Your task to perform on an android device: turn pop-ups off in chrome Image 0: 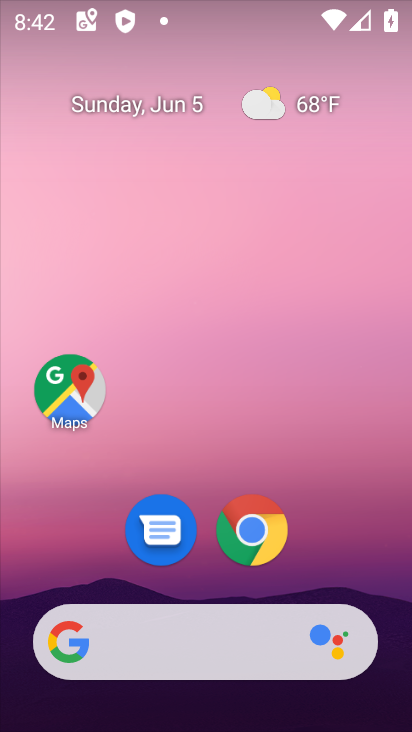
Step 0: click (248, 530)
Your task to perform on an android device: turn pop-ups off in chrome Image 1: 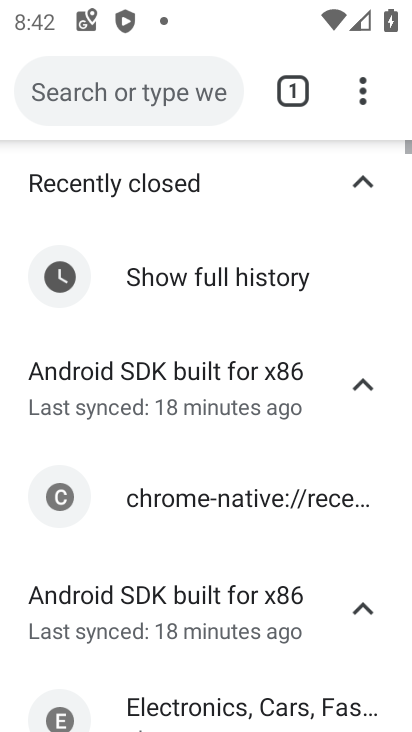
Step 1: click (358, 99)
Your task to perform on an android device: turn pop-ups off in chrome Image 2: 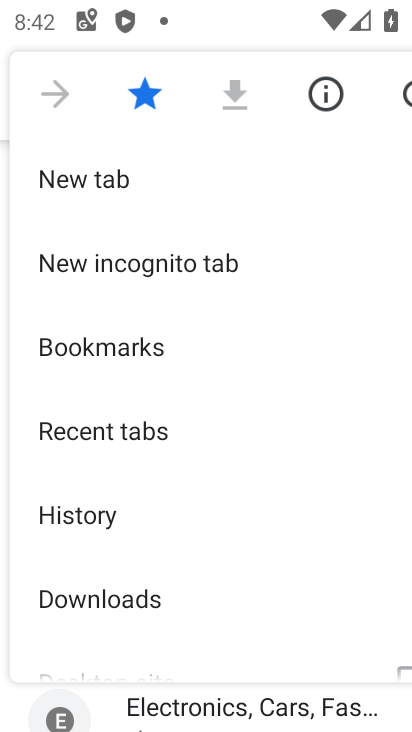
Step 2: drag from (214, 619) to (254, 168)
Your task to perform on an android device: turn pop-ups off in chrome Image 3: 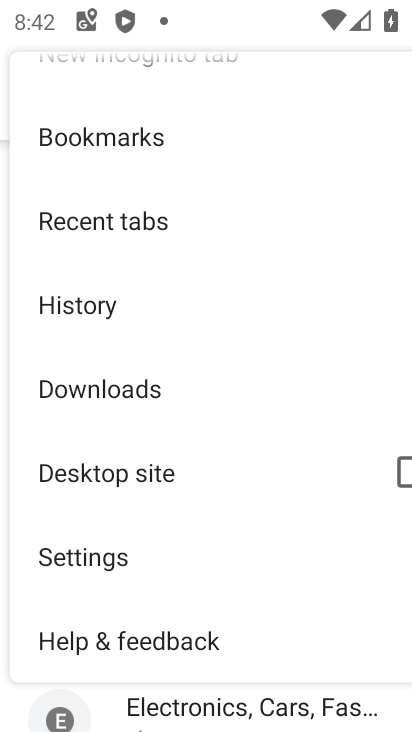
Step 3: drag from (210, 647) to (270, 343)
Your task to perform on an android device: turn pop-ups off in chrome Image 4: 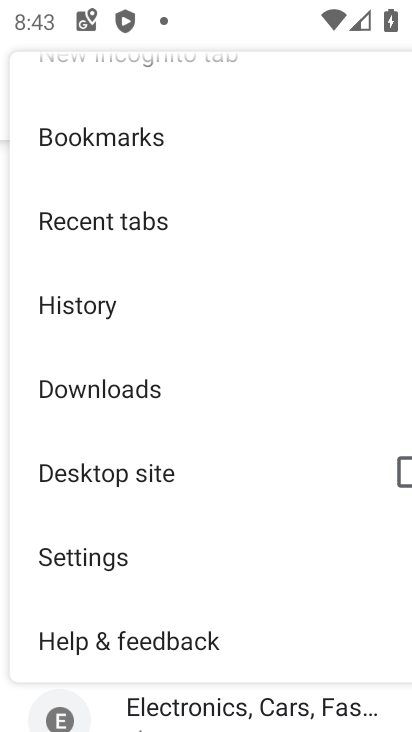
Step 4: click (100, 546)
Your task to perform on an android device: turn pop-ups off in chrome Image 5: 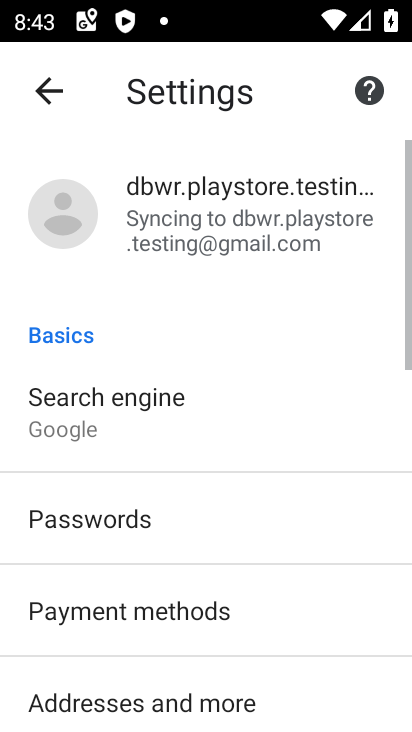
Step 5: drag from (297, 665) to (243, 201)
Your task to perform on an android device: turn pop-ups off in chrome Image 6: 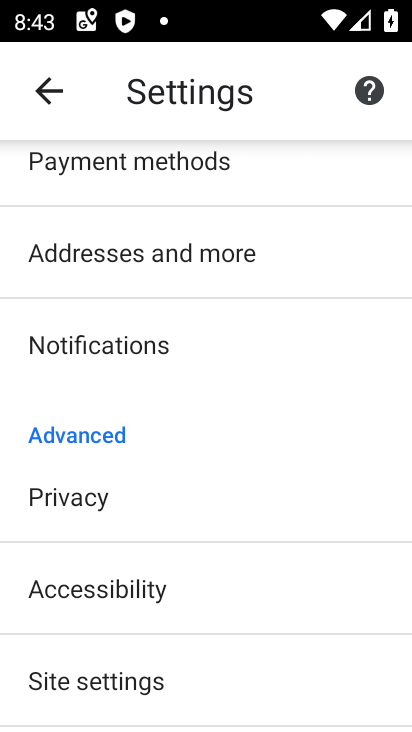
Step 6: drag from (236, 686) to (288, 272)
Your task to perform on an android device: turn pop-ups off in chrome Image 7: 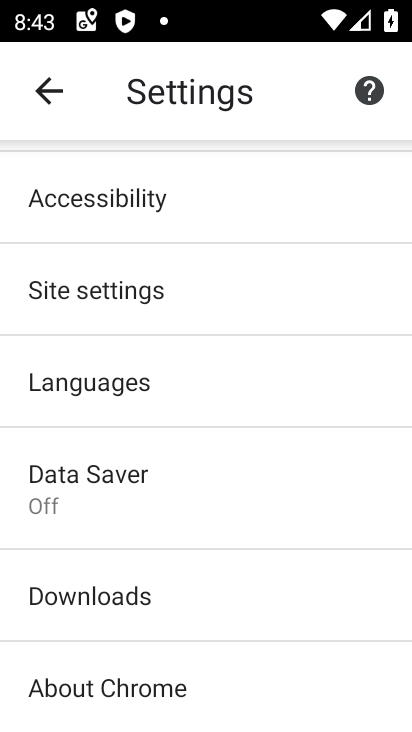
Step 7: click (63, 300)
Your task to perform on an android device: turn pop-ups off in chrome Image 8: 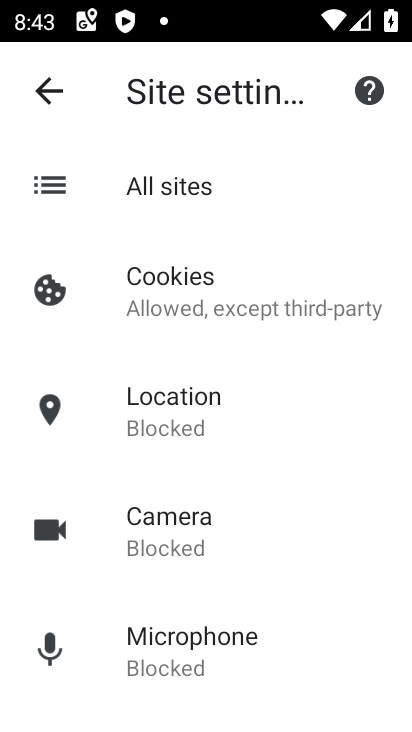
Step 8: drag from (265, 679) to (282, 125)
Your task to perform on an android device: turn pop-ups off in chrome Image 9: 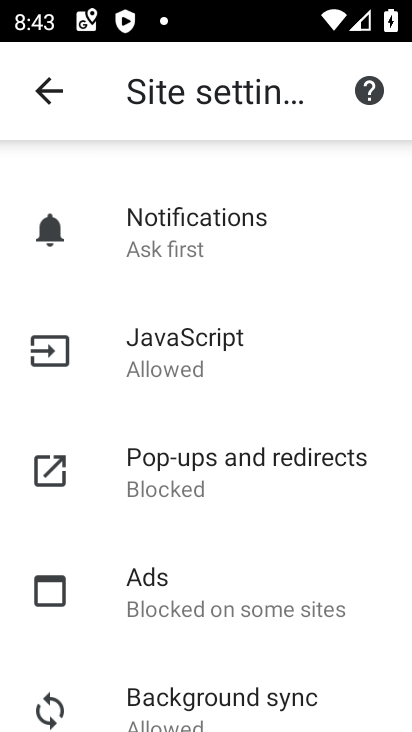
Step 9: click (157, 466)
Your task to perform on an android device: turn pop-ups off in chrome Image 10: 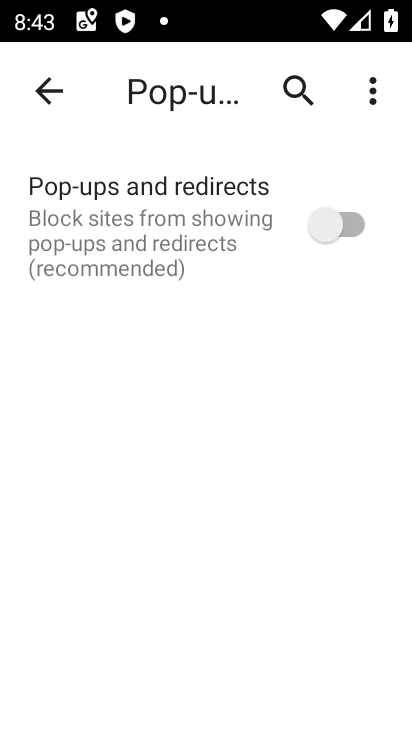
Step 10: task complete